Your task to perform on an android device: turn on bluetooth scan Image 0: 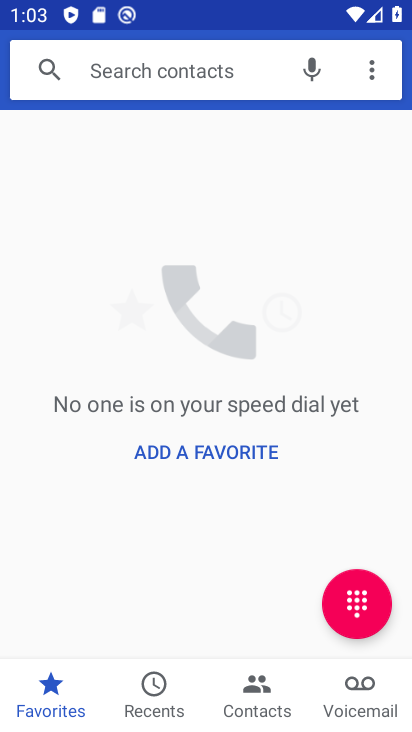
Step 0: press back button
Your task to perform on an android device: turn on bluetooth scan Image 1: 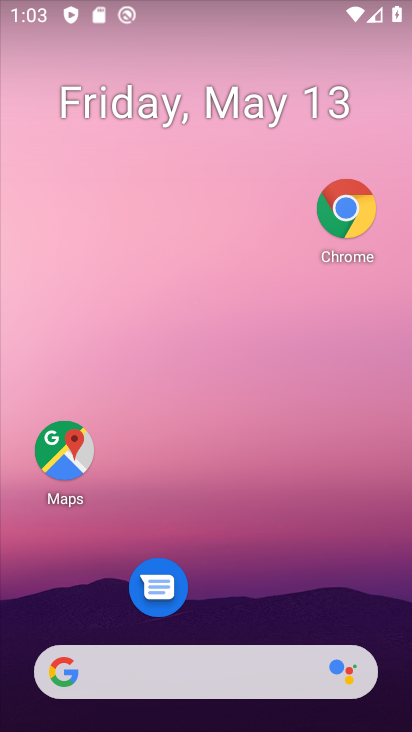
Step 1: drag from (193, 609) to (316, 132)
Your task to perform on an android device: turn on bluetooth scan Image 2: 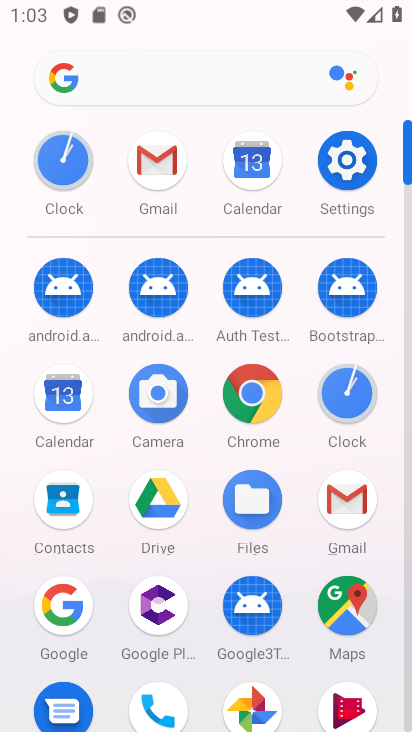
Step 2: click (342, 133)
Your task to perform on an android device: turn on bluetooth scan Image 3: 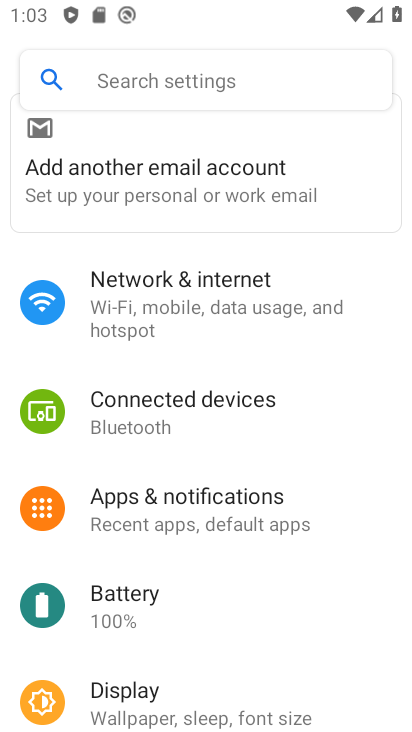
Step 3: drag from (156, 694) to (274, 180)
Your task to perform on an android device: turn on bluetooth scan Image 4: 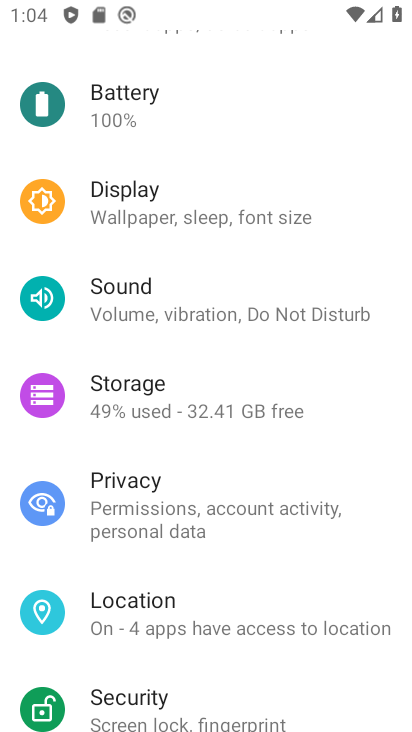
Step 4: drag from (198, 167) to (110, 731)
Your task to perform on an android device: turn on bluetooth scan Image 5: 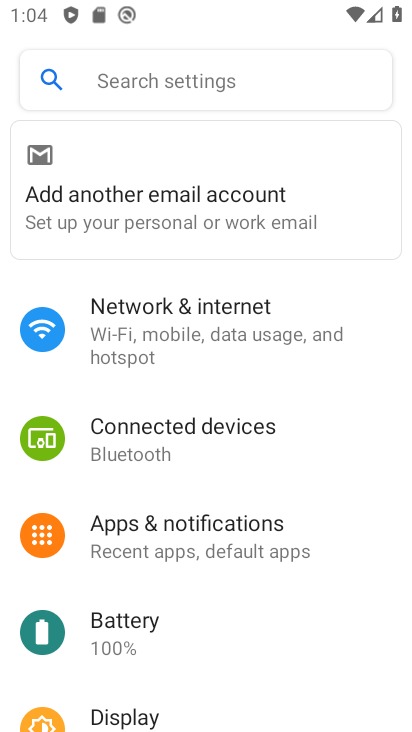
Step 5: click (197, 453)
Your task to perform on an android device: turn on bluetooth scan Image 6: 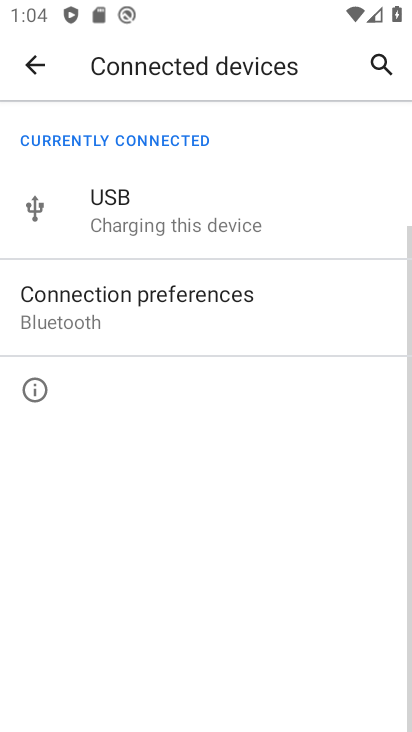
Step 6: click (139, 305)
Your task to perform on an android device: turn on bluetooth scan Image 7: 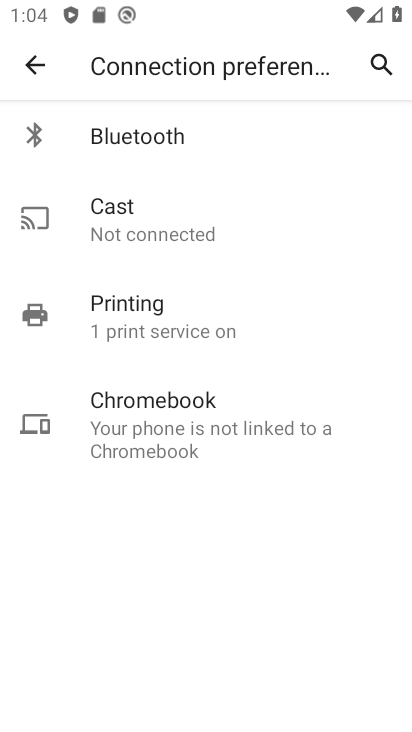
Step 7: click (143, 143)
Your task to perform on an android device: turn on bluetooth scan Image 8: 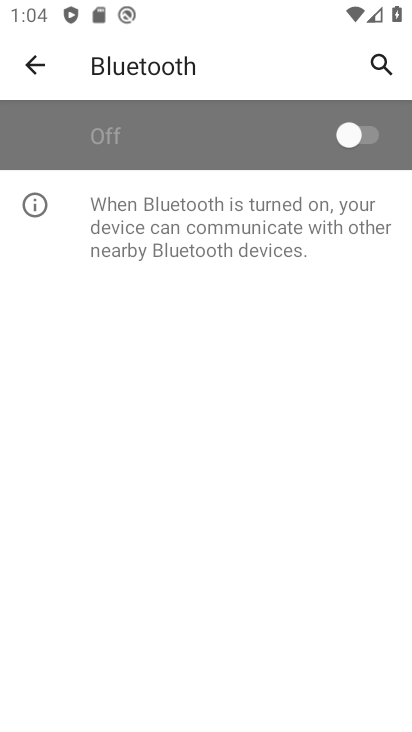
Step 8: click (376, 123)
Your task to perform on an android device: turn on bluetooth scan Image 9: 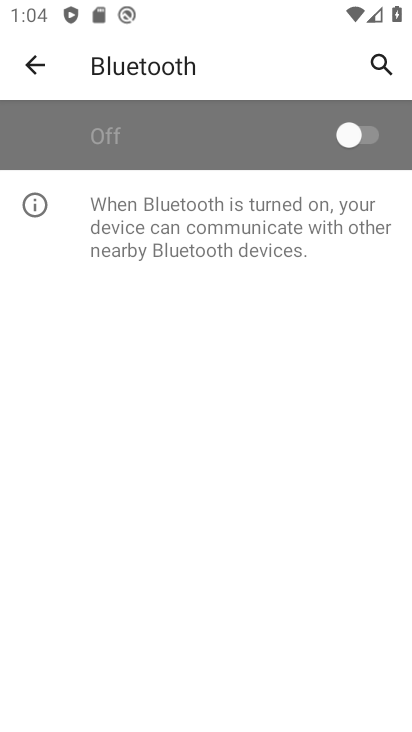
Step 9: task complete